Your task to perform on an android device: Show me productivity apps on the Play Store Image 0: 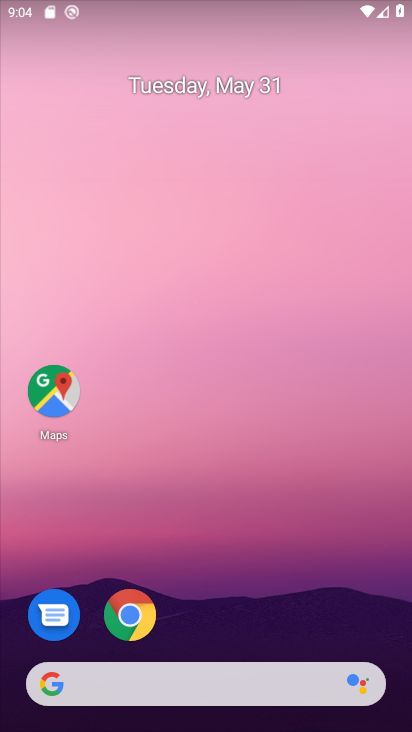
Step 0: drag from (202, 606) to (258, 128)
Your task to perform on an android device: Show me productivity apps on the Play Store Image 1: 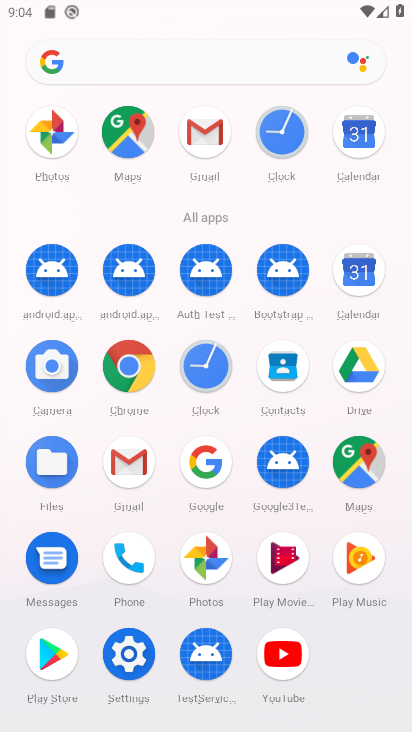
Step 1: click (37, 681)
Your task to perform on an android device: Show me productivity apps on the Play Store Image 2: 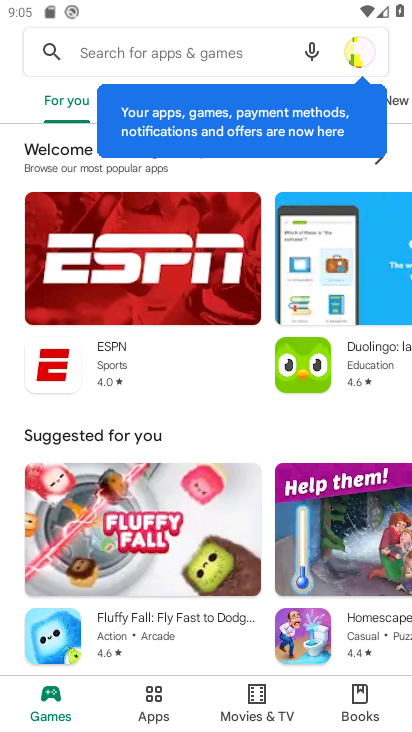
Step 2: click (177, 721)
Your task to perform on an android device: Show me productivity apps on the Play Store Image 3: 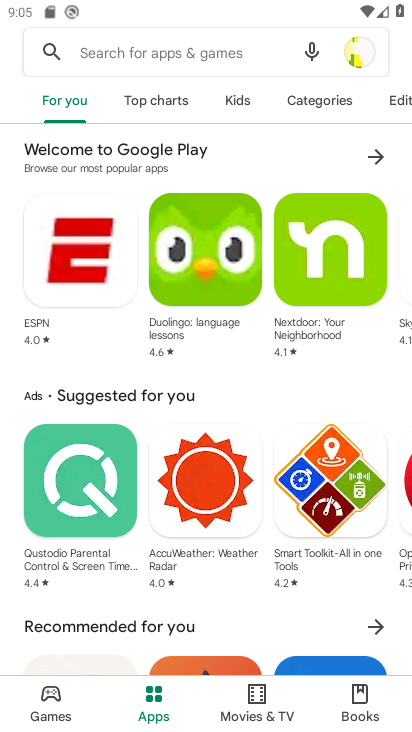
Step 3: click (339, 100)
Your task to perform on an android device: Show me productivity apps on the Play Store Image 4: 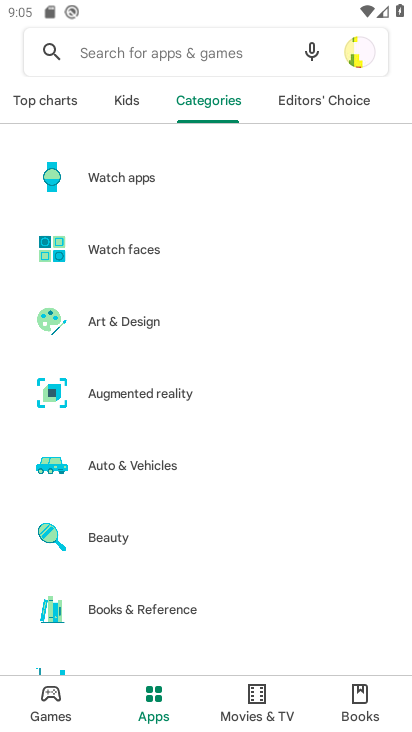
Step 4: drag from (160, 570) to (238, 74)
Your task to perform on an android device: Show me productivity apps on the Play Store Image 5: 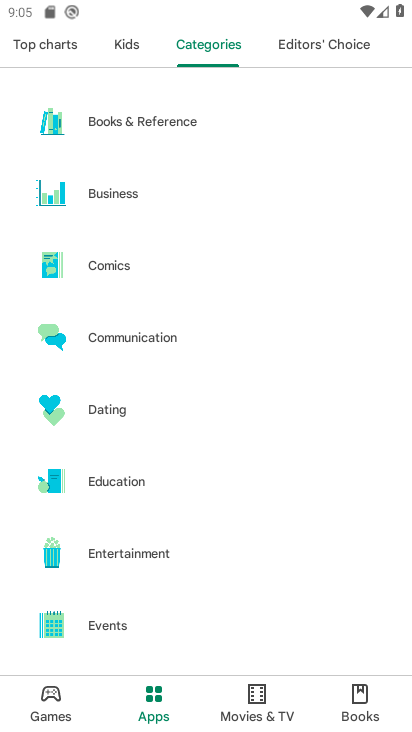
Step 5: drag from (138, 552) to (206, 110)
Your task to perform on an android device: Show me productivity apps on the Play Store Image 6: 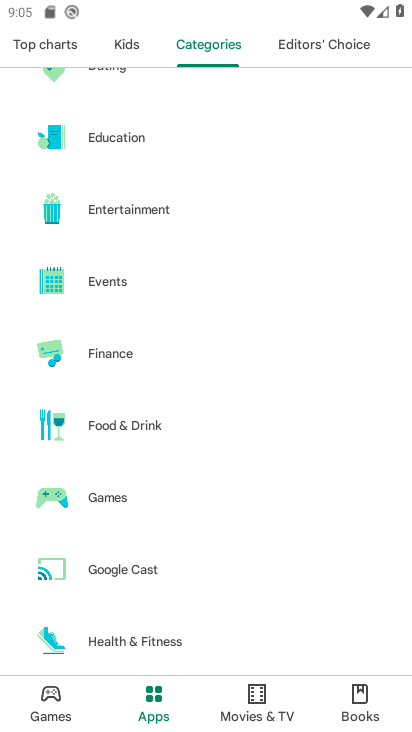
Step 6: drag from (195, 600) to (289, 61)
Your task to perform on an android device: Show me productivity apps on the Play Store Image 7: 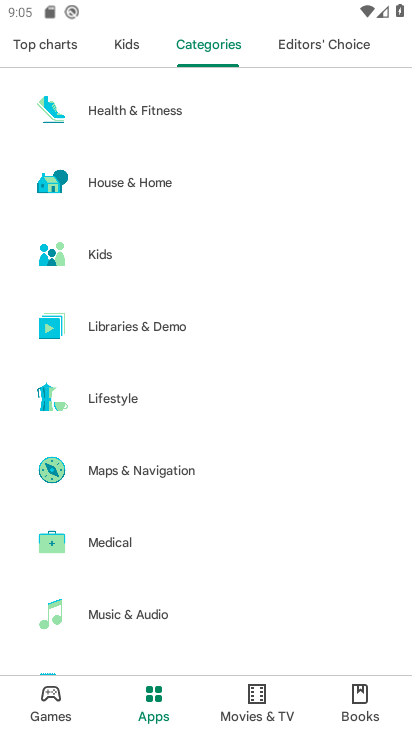
Step 7: drag from (190, 508) to (231, 213)
Your task to perform on an android device: Show me productivity apps on the Play Store Image 8: 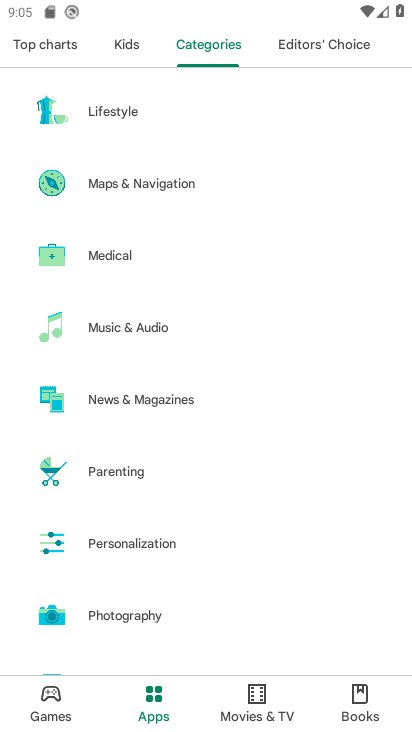
Step 8: drag from (231, 213) to (287, 75)
Your task to perform on an android device: Show me productivity apps on the Play Store Image 9: 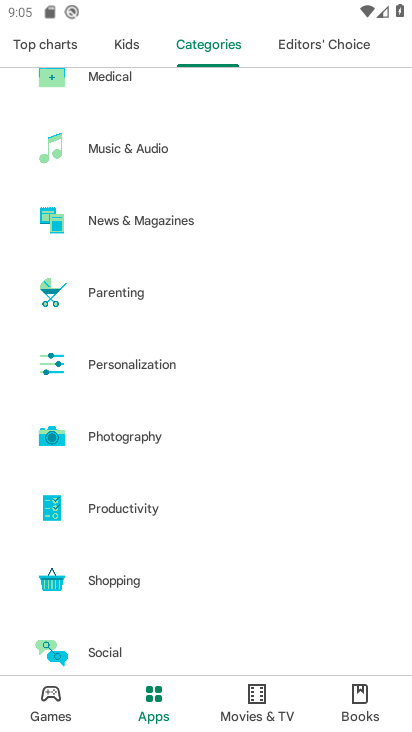
Step 9: click (120, 497)
Your task to perform on an android device: Show me productivity apps on the Play Store Image 10: 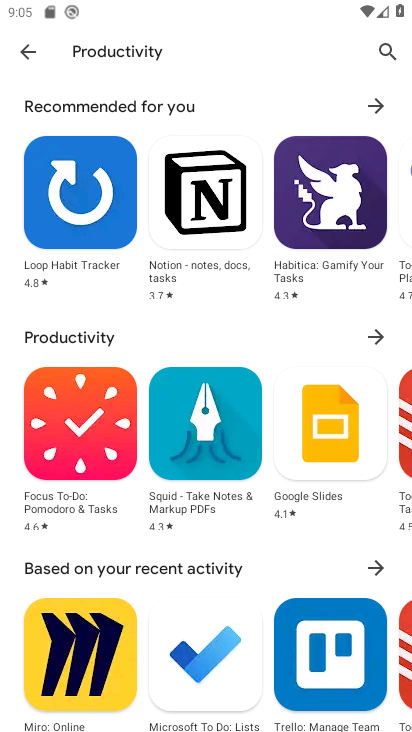
Step 10: task complete